Your task to perform on an android device: check google app version Image 0: 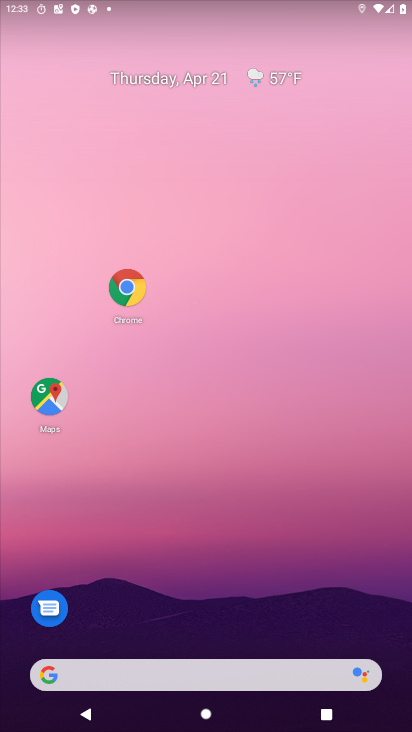
Step 0: drag from (203, 367) to (166, 92)
Your task to perform on an android device: check google app version Image 1: 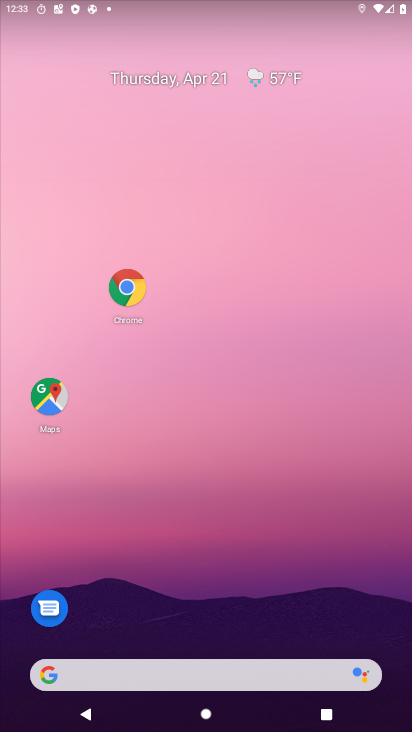
Step 1: drag from (256, 549) to (250, 12)
Your task to perform on an android device: check google app version Image 2: 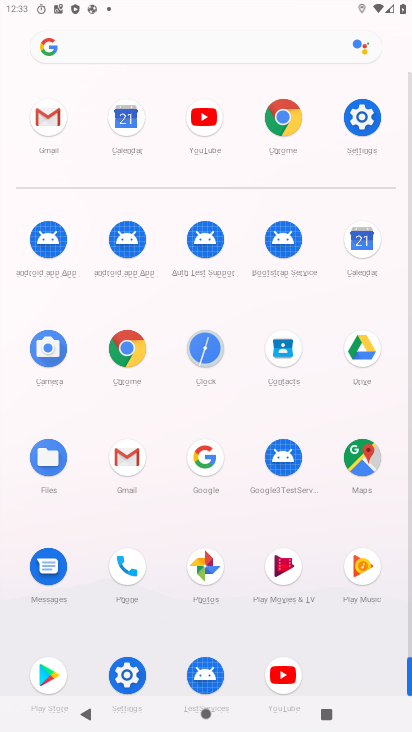
Step 2: click (204, 463)
Your task to perform on an android device: check google app version Image 3: 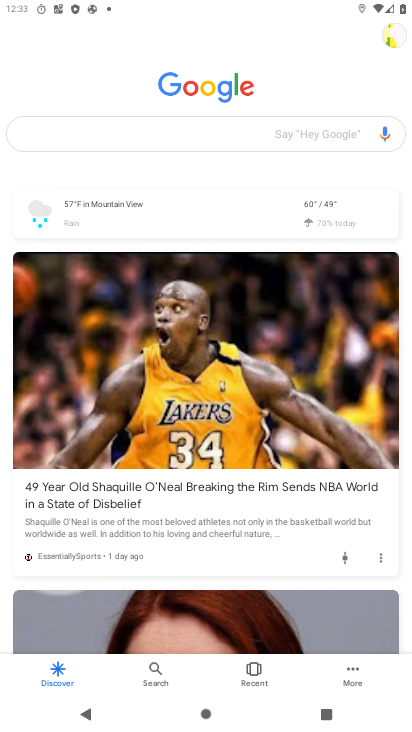
Step 3: click (356, 679)
Your task to perform on an android device: check google app version Image 4: 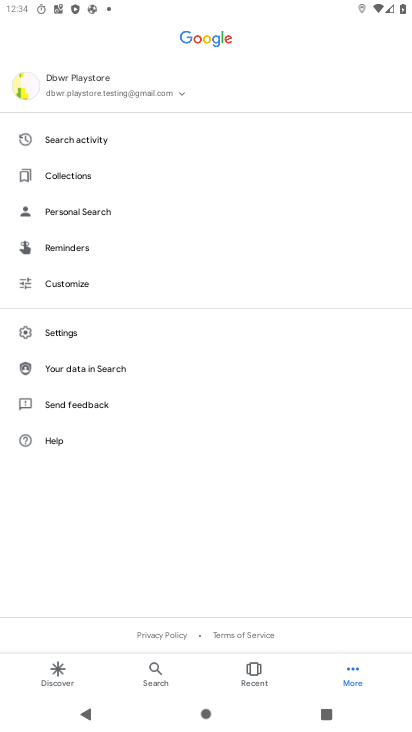
Step 4: click (46, 329)
Your task to perform on an android device: check google app version Image 5: 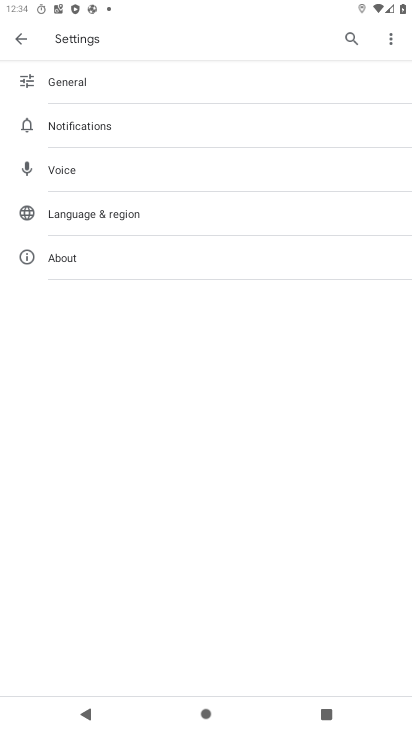
Step 5: click (57, 269)
Your task to perform on an android device: check google app version Image 6: 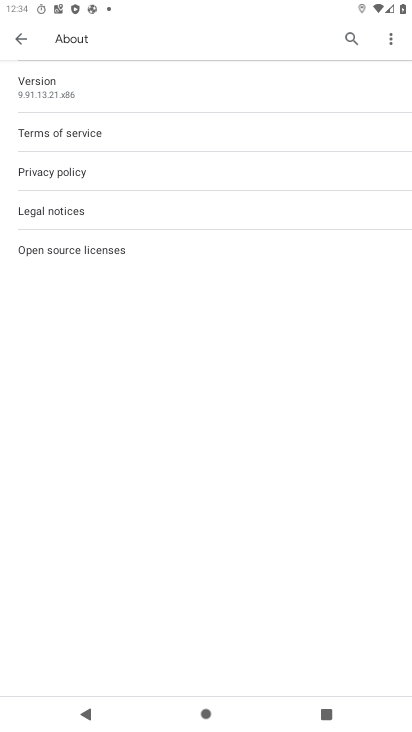
Step 6: click (55, 96)
Your task to perform on an android device: check google app version Image 7: 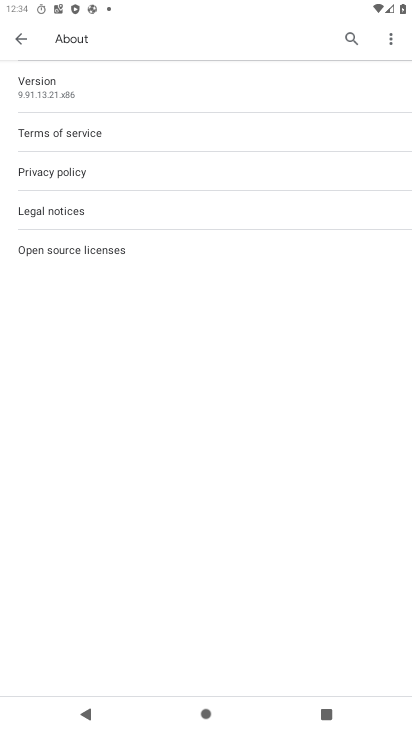
Step 7: task complete